Your task to perform on an android device: open app "LinkedIn" (install if not already installed) Image 0: 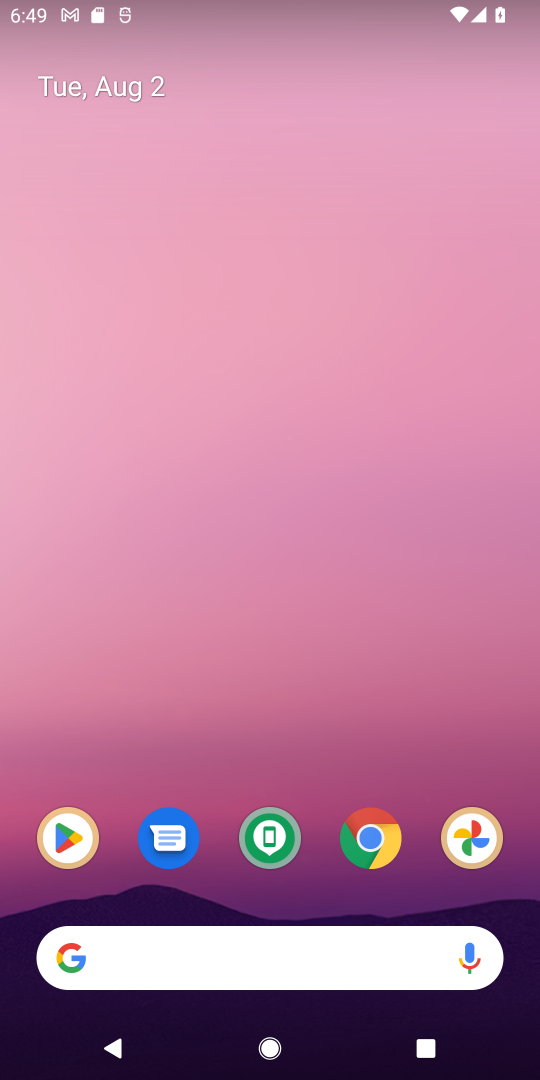
Step 0: click (59, 828)
Your task to perform on an android device: open app "LinkedIn" (install if not already installed) Image 1: 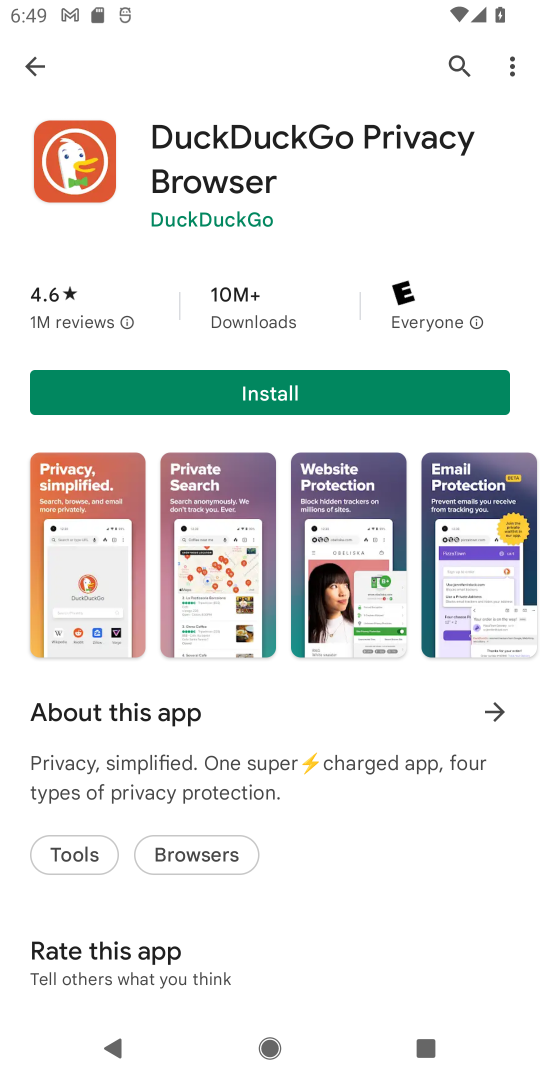
Step 1: click (463, 74)
Your task to perform on an android device: open app "LinkedIn" (install if not already installed) Image 2: 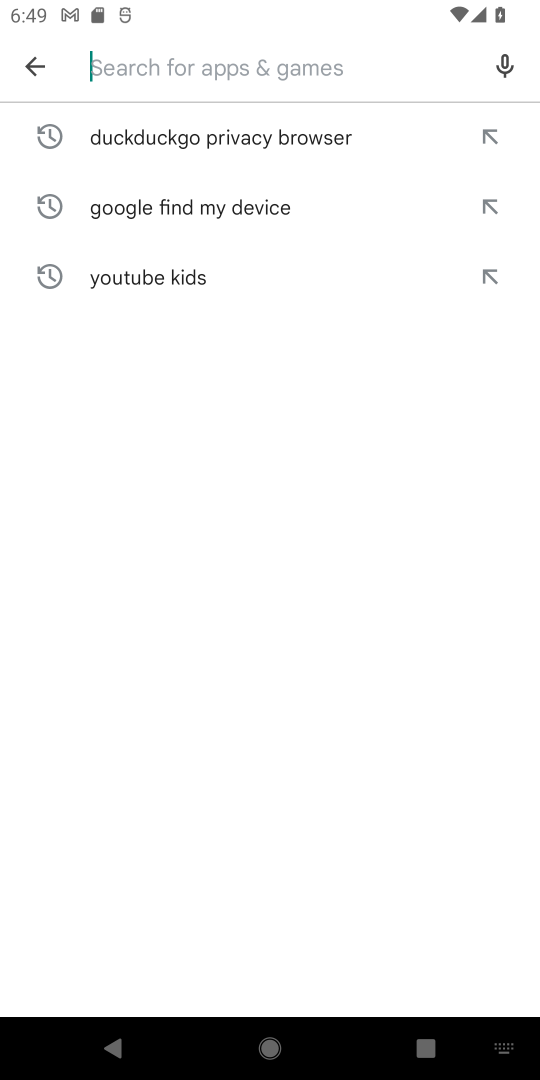
Step 2: type "LinkedIn"
Your task to perform on an android device: open app "LinkedIn" (install if not already installed) Image 3: 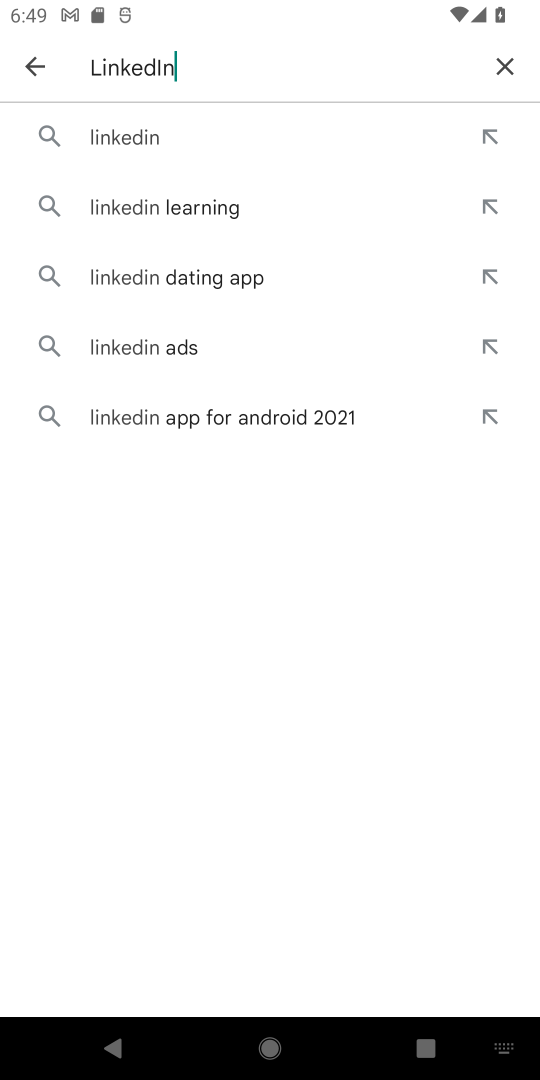
Step 3: click (216, 136)
Your task to perform on an android device: open app "LinkedIn" (install if not already installed) Image 4: 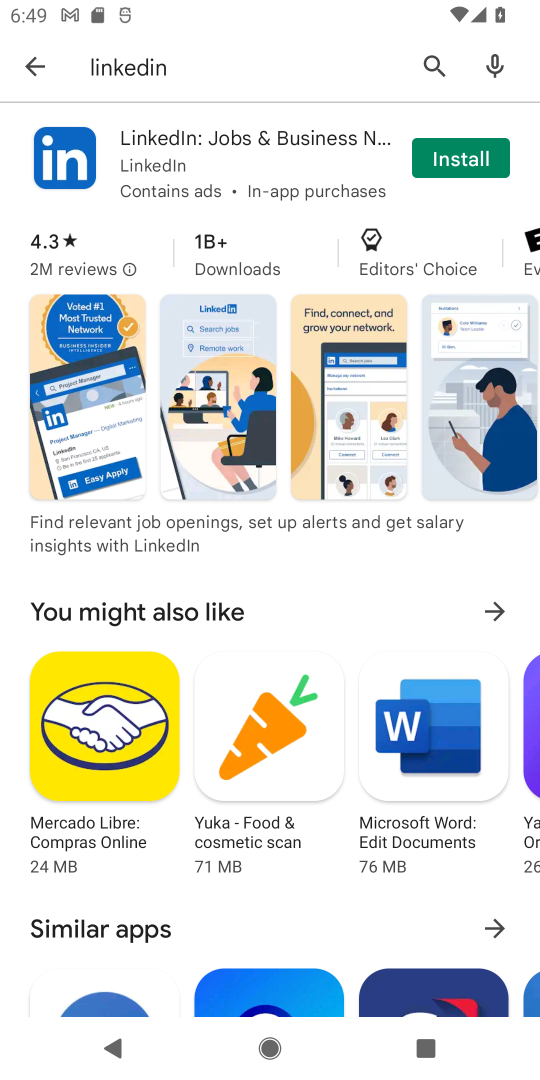
Step 4: click (219, 134)
Your task to perform on an android device: open app "LinkedIn" (install if not already installed) Image 5: 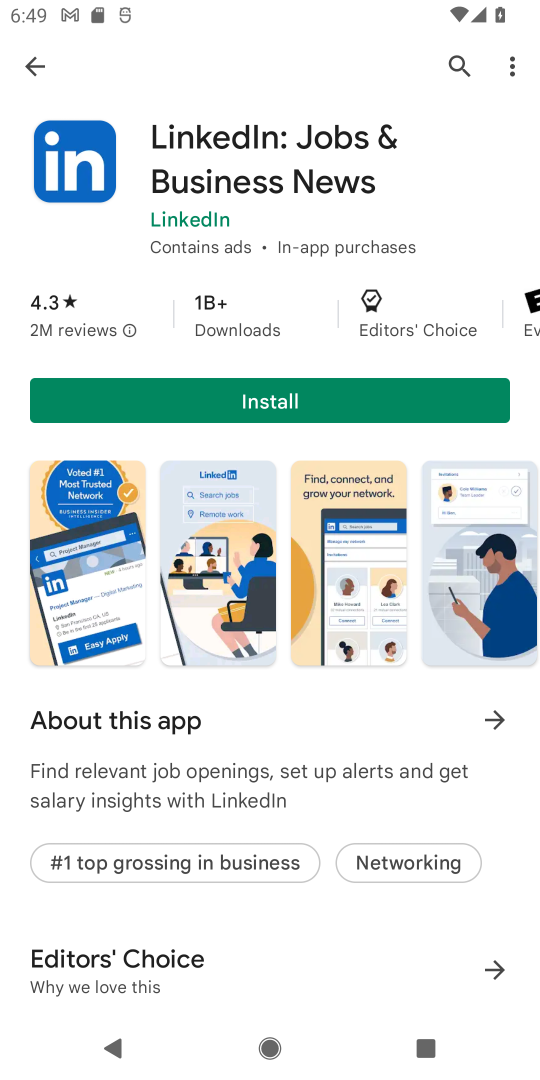
Step 5: click (134, 387)
Your task to perform on an android device: open app "LinkedIn" (install if not already installed) Image 6: 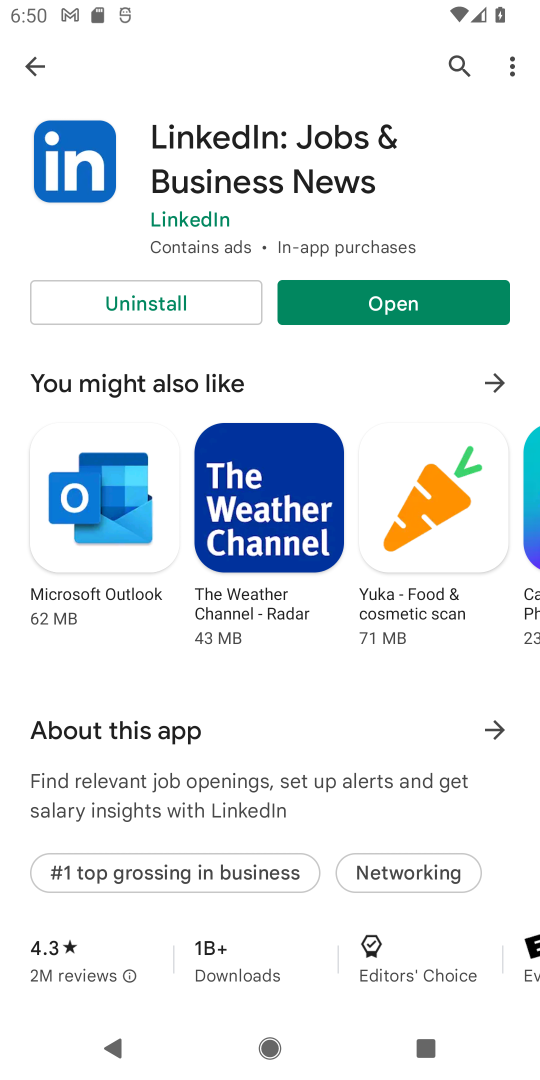
Step 6: click (414, 286)
Your task to perform on an android device: open app "LinkedIn" (install if not already installed) Image 7: 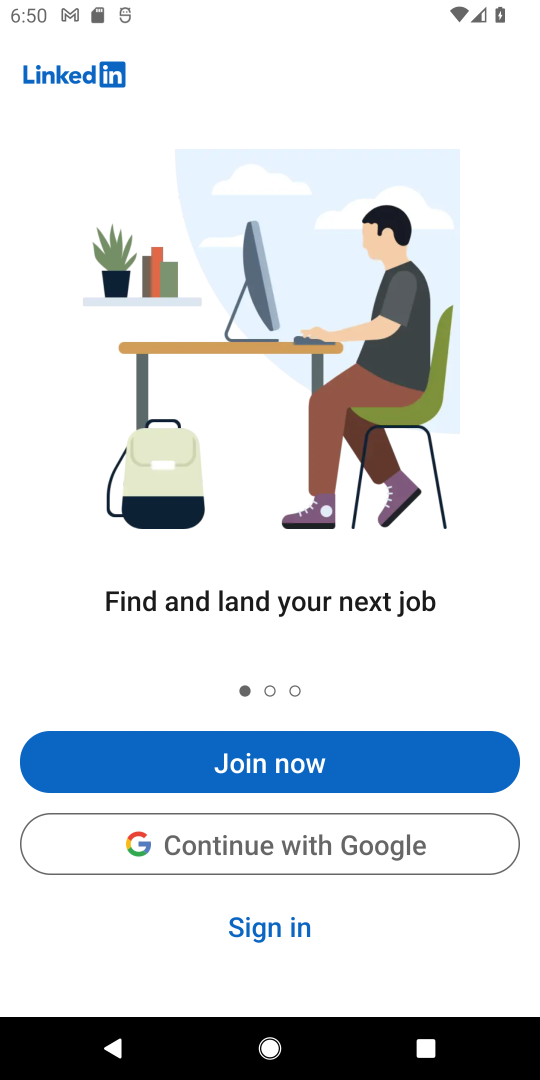
Step 7: task complete